Your task to perform on an android device: Search for vegetarian restaurants on Maps Image 0: 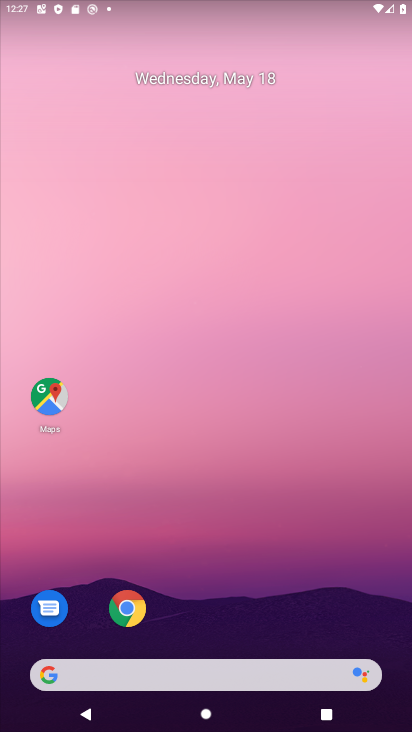
Step 0: click (34, 408)
Your task to perform on an android device: Search for vegetarian restaurants on Maps Image 1: 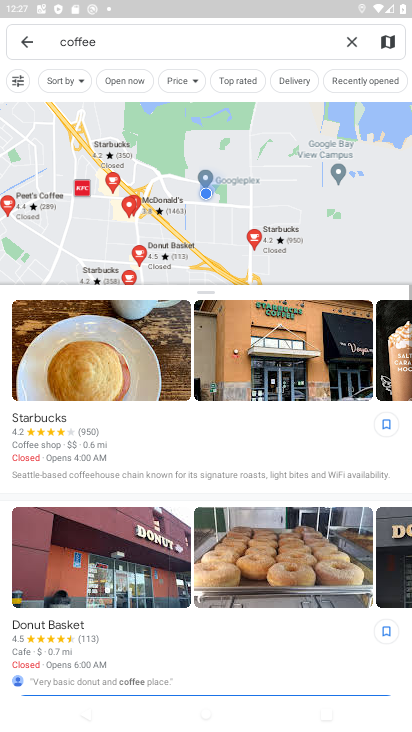
Step 1: click (347, 46)
Your task to perform on an android device: Search for vegetarian restaurants on Maps Image 2: 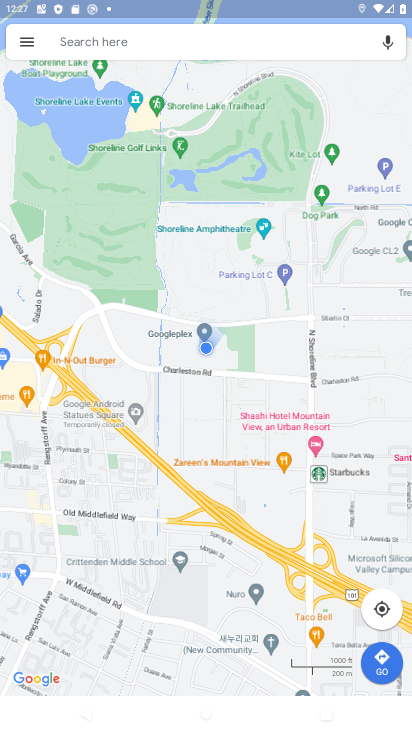
Step 2: click (171, 44)
Your task to perform on an android device: Search for vegetarian restaurants on Maps Image 3: 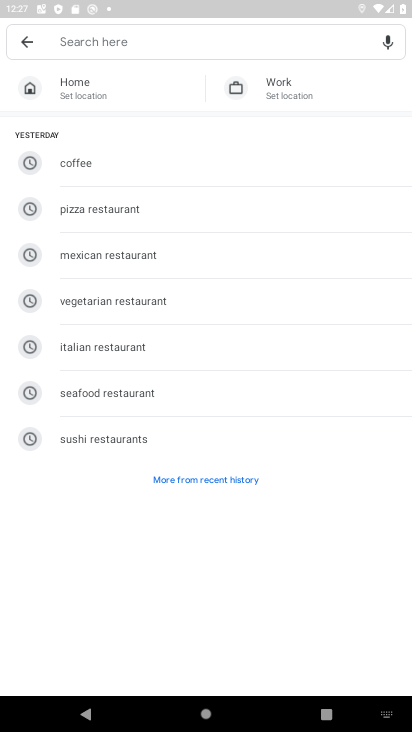
Step 3: click (124, 304)
Your task to perform on an android device: Search for vegetarian restaurants on Maps Image 4: 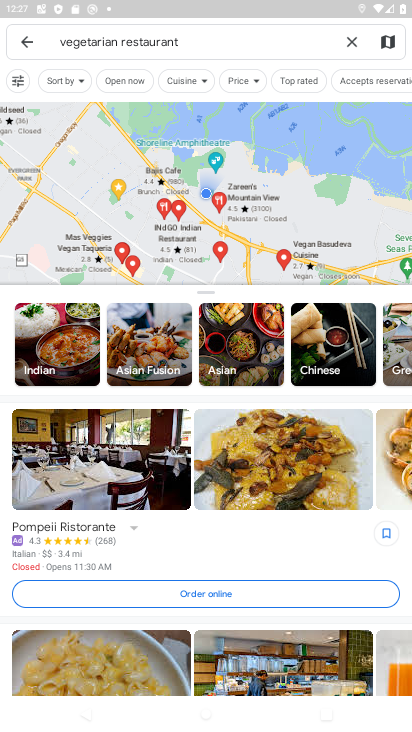
Step 4: task complete